Your task to perform on an android device: add a label to a message in the gmail app Image 0: 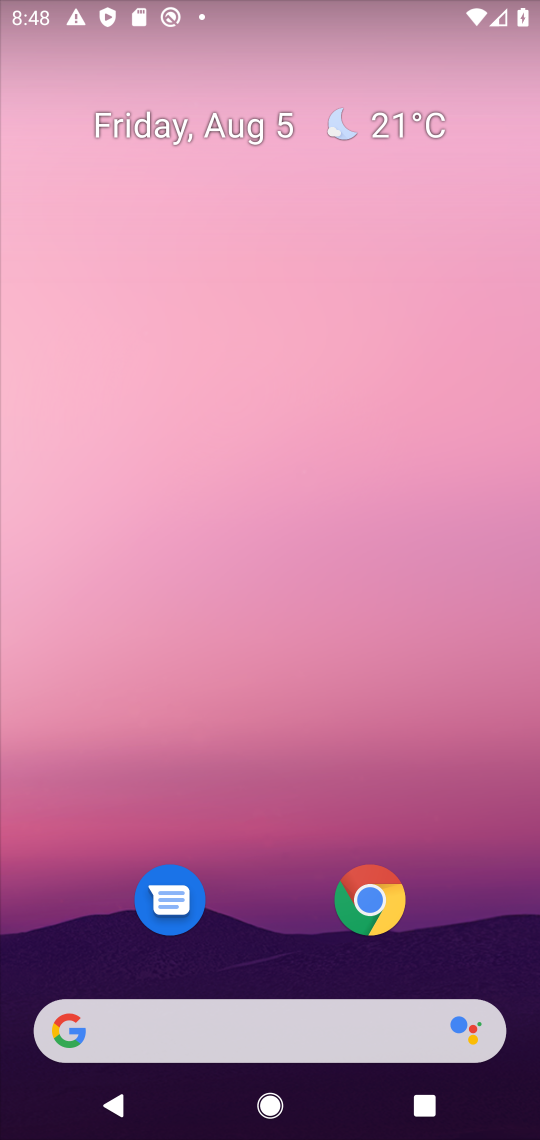
Step 0: press home button
Your task to perform on an android device: add a label to a message in the gmail app Image 1: 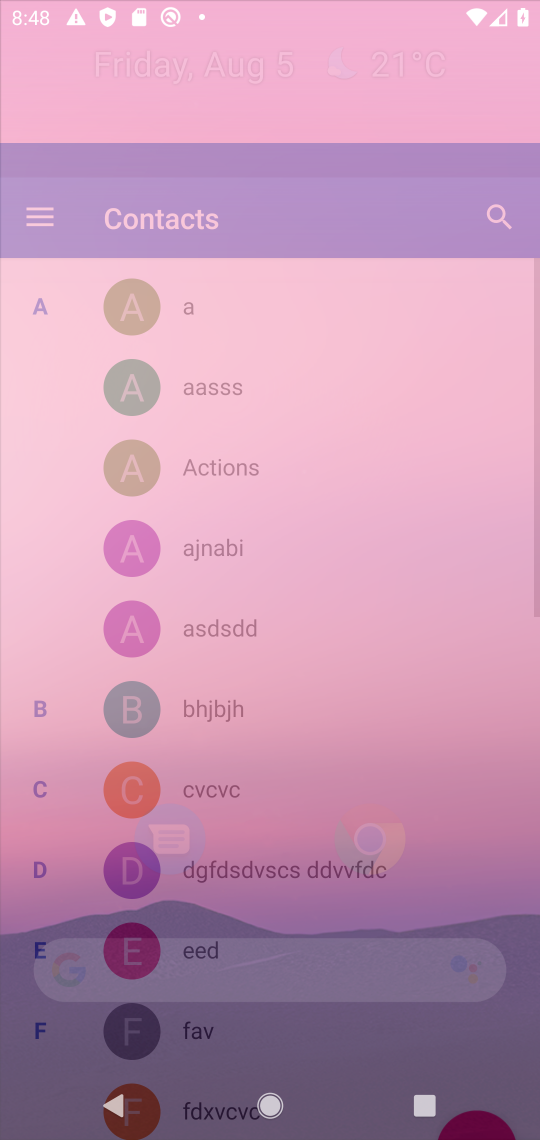
Step 1: drag from (279, 950) to (279, 355)
Your task to perform on an android device: add a label to a message in the gmail app Image 2: 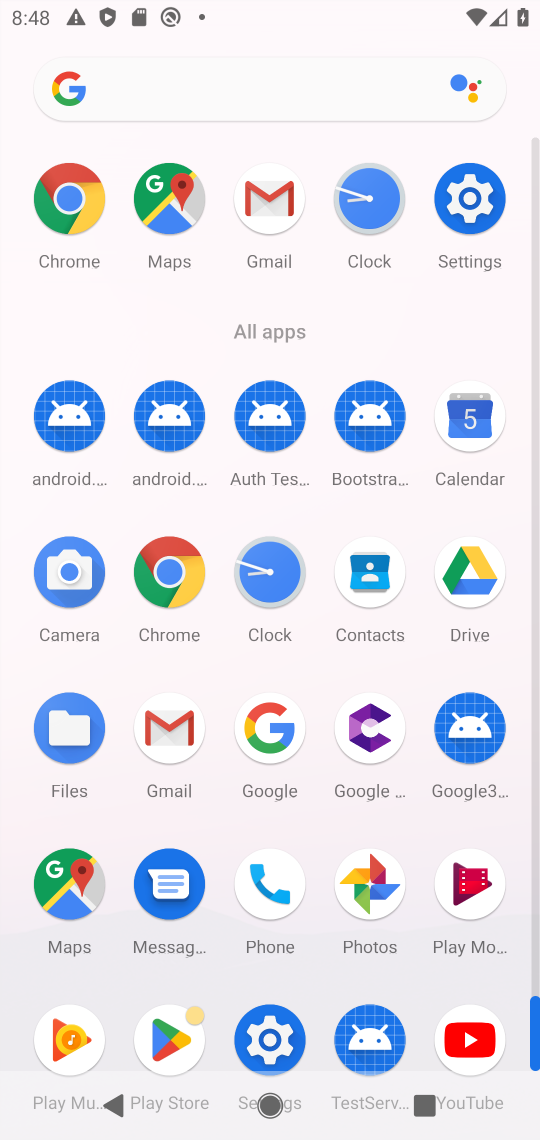
Step 2: click (232, 212)
Your task to perform on an android device: add a label to a message in the gmail app Image 3: 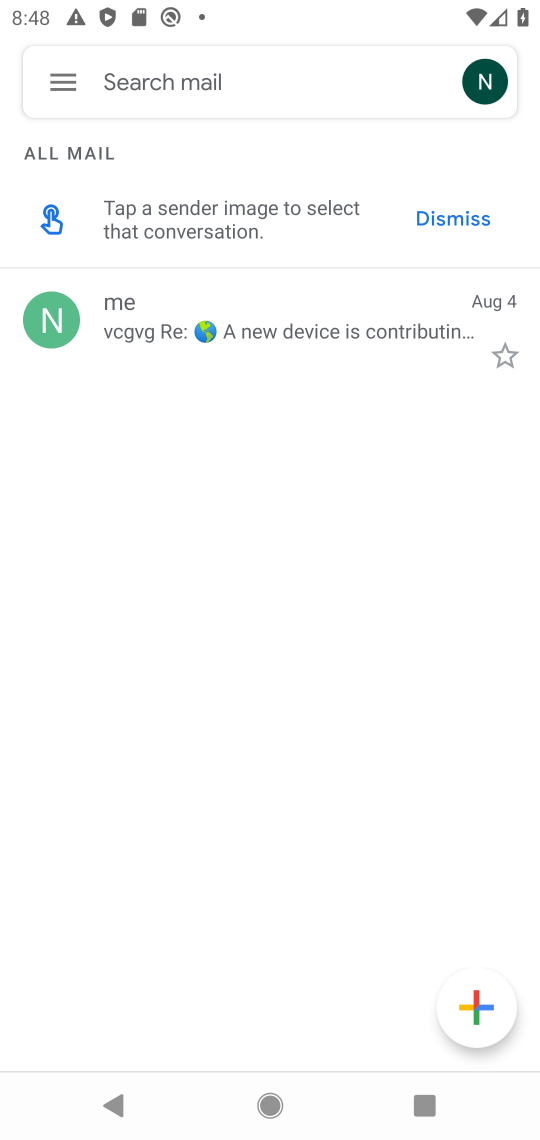
Step 3: click (343, 340)
Your task to perform on an android device: add a label to a message in the gmail app Image 4: 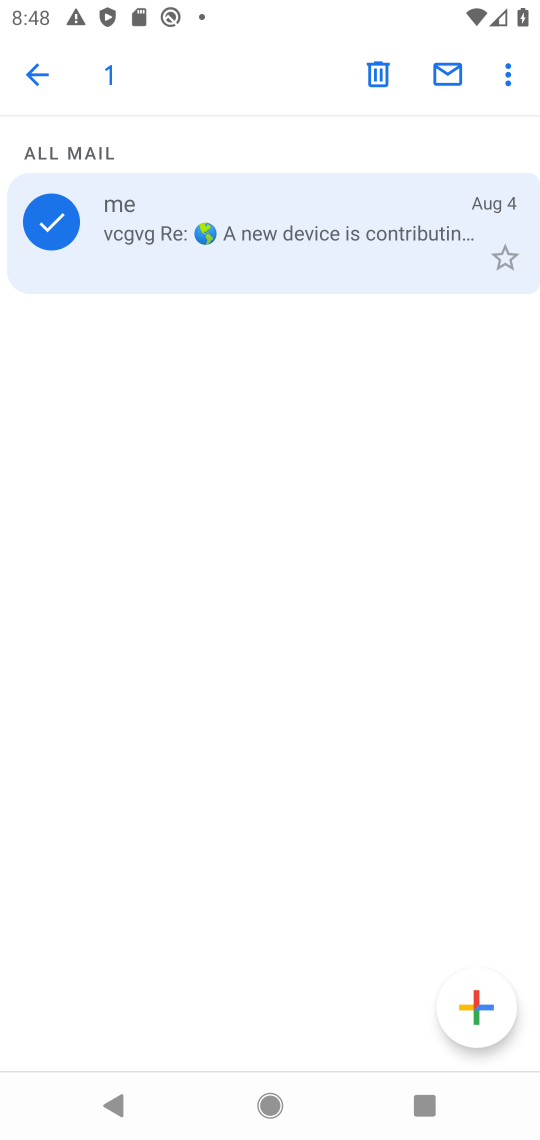
Step 4: click (515, 73)
Your task to perform on an android device: add a label to a message in the gmail app Image 5: 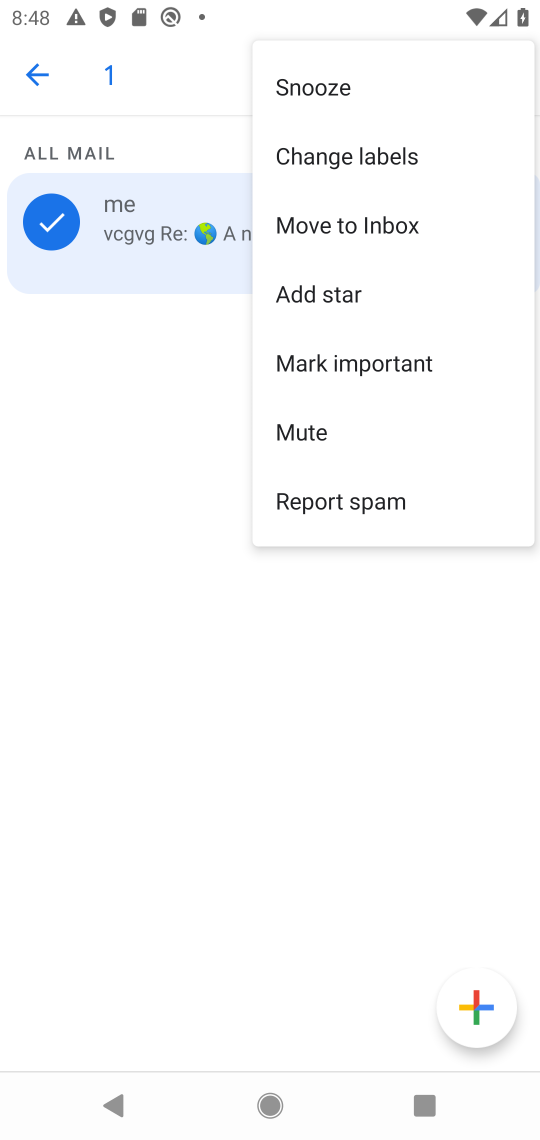
Step 5: task complete